Your task to perform on an android device: Show me popular videos on Youtube Image 0: 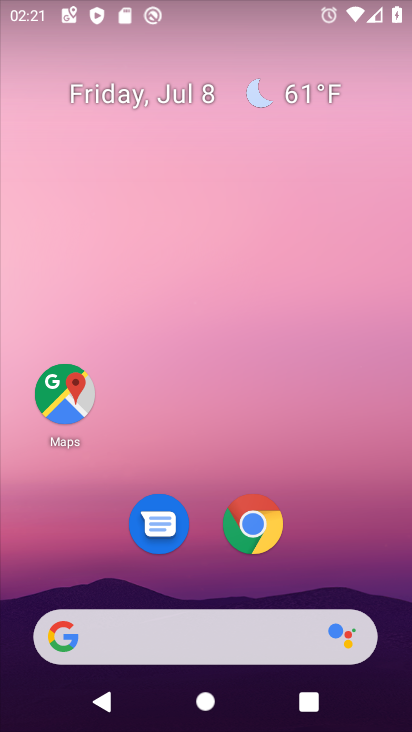
Step 0: drag from (321, 519) to (277, 2)
Your task to perform on an android device: Show me popular videos on Youtube Image 1: 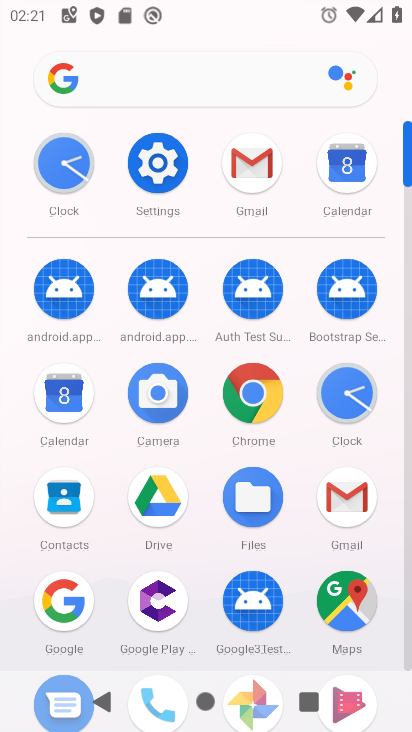
Step 1: drag from (200, 431) to (228, 4)
Your task to perform on an android device: Show me popular videos on Youtube Image 2: 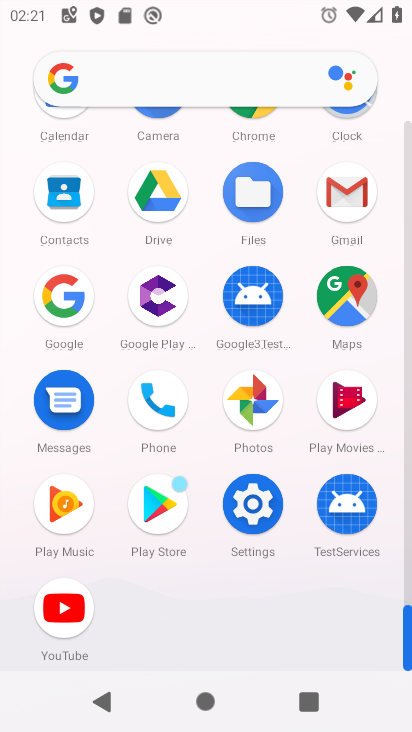
Step 2: click (74, 598)
Your task to perform on an android device: Show me popular videos on Youtube Image 3: 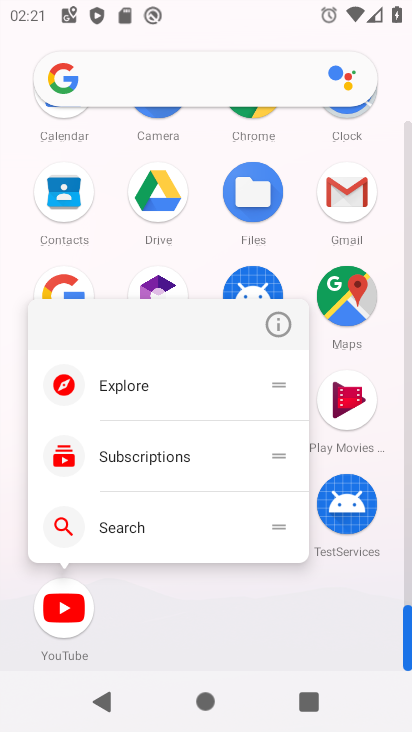
Step 3: click (82, 608)
Your task to perform on an android device: Show me popular videos on Youtube Image 4: 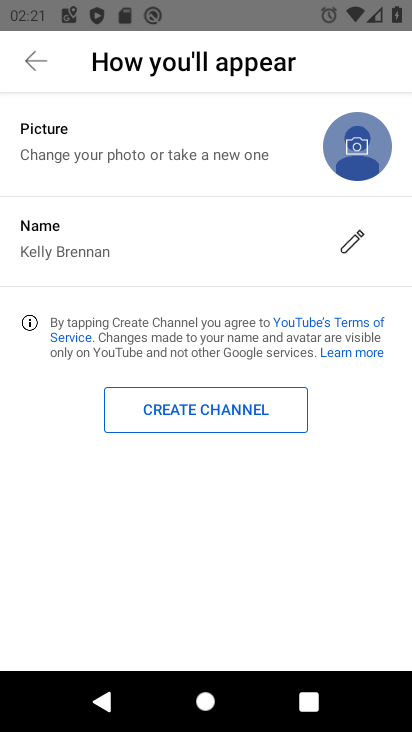
Step 4: click (34, 55)
Your task to perform on an android device: Show me popular videos on Youtube Image 5: 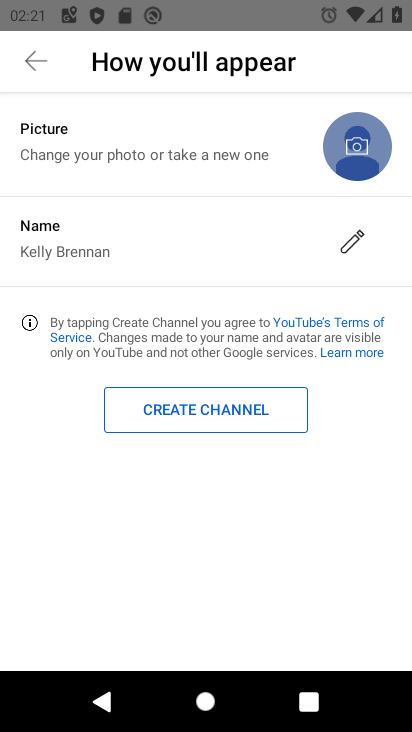
Step 5: click (43, 59)
Your task to perform on an android device: Show me popular videos on Youtube Image 6: 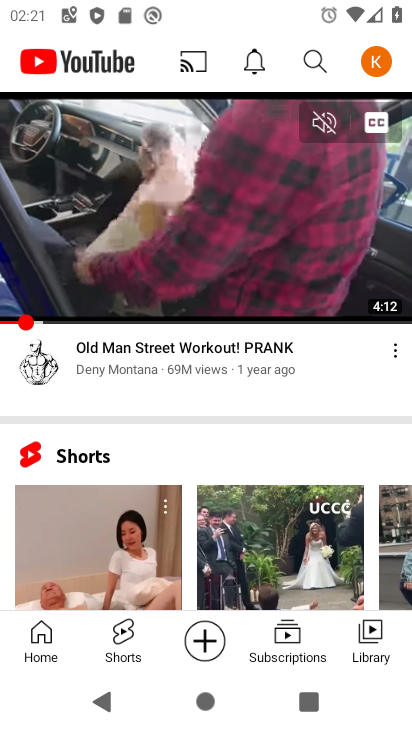
Step 6: drag from (276, 213) to (295, 509)
Your task to perform on an android device: Show me popular videos on Youtube Image 7: 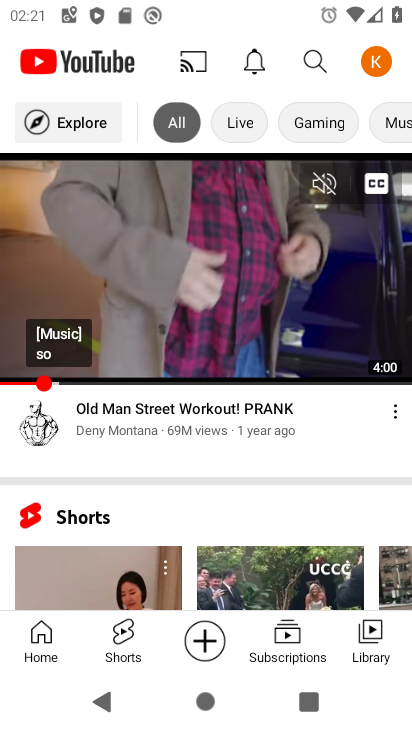
Step 7: click (319, 51)
Your task to perform on an android device: Show me popular videos on Youtube Image 8: 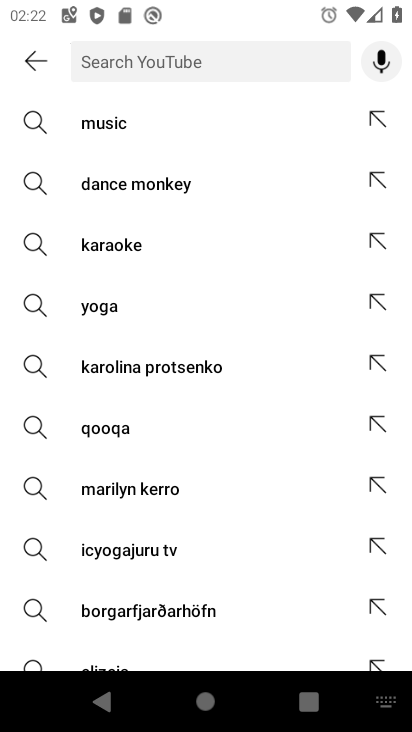
Step 8: type "popular videios"
Your task to perform on an android device: Show me popular videos on Youtube Image 9: 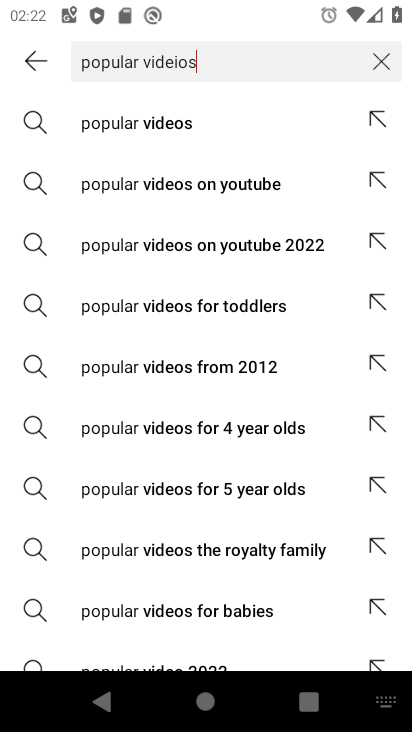
Step 9: click (181, 116)
Your task to perform on an android device: Show me popular videos on Youtube Image 10: 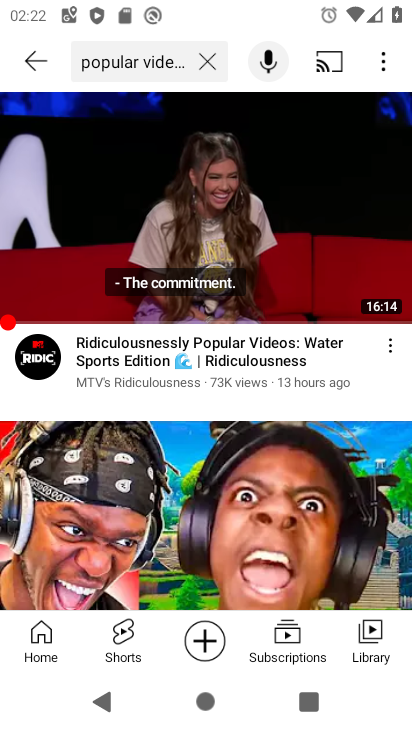
Step 10: task complete